Your task to perform on an android device: Is it going to rain tomorrow? Image 0: 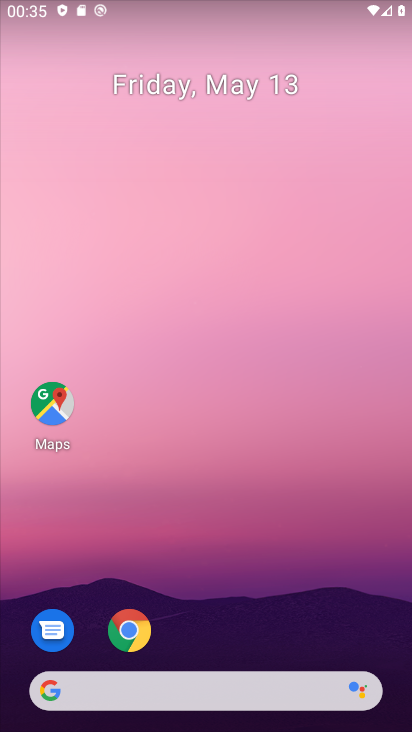
Step 0: drag from (246, 718) to (311, 114)
Your task to perform on an android device: Is it going to rain tomorrow? Image 1: 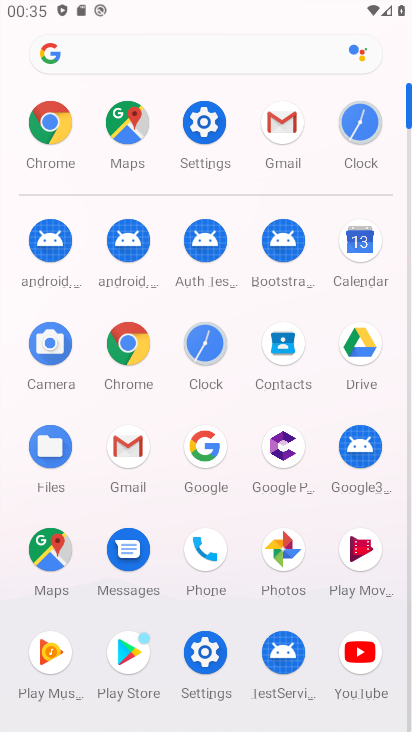
Step 1: click (140, 67)
Your task to perform on an android device: Is it going to rain tomorrow? Image 2: 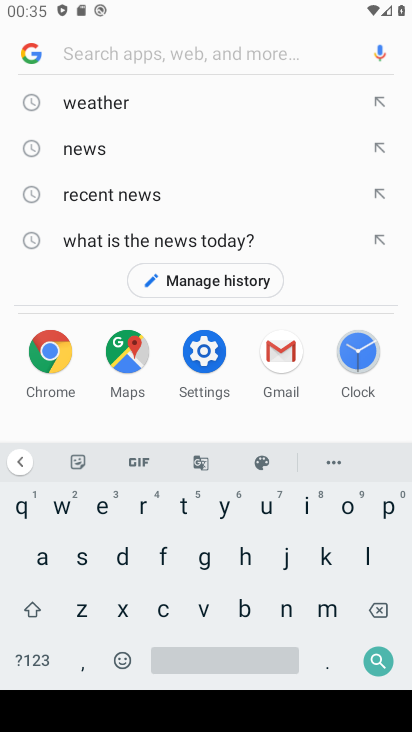
Step 2: click (118, 102)
Your task to perform on an android device: Is it going to rain tomorrow? Image 3: 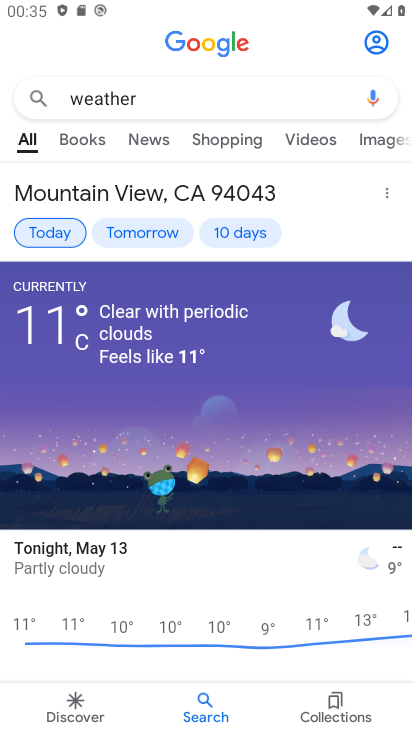
Step 3: click (132, 228)
Your task to perform on an android device: Is it going to rain tomorrow? Image 4: 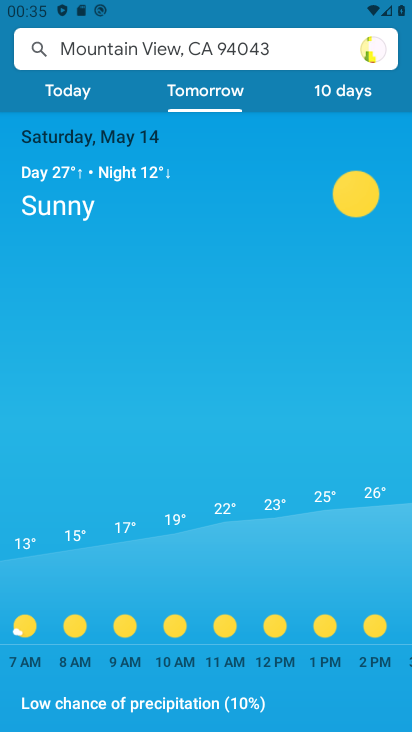
Step 4: task complete